Your task to perform on an android device: toggle airplane mode Image 0: 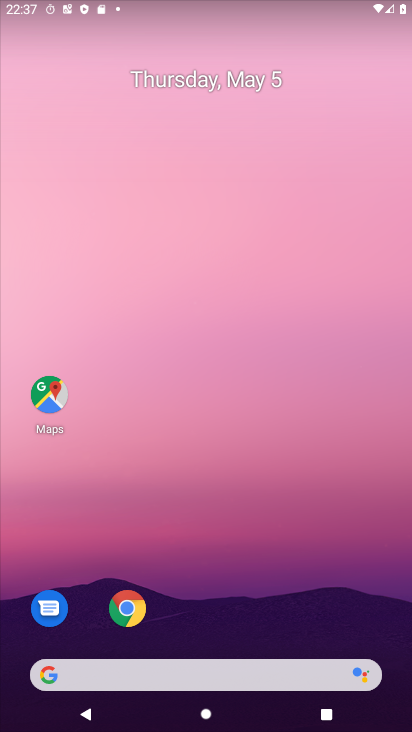
Step 0: drag from (195, 10) to (235, 621)
Your task to perform on an android device: toggle airplane mode Image 1: 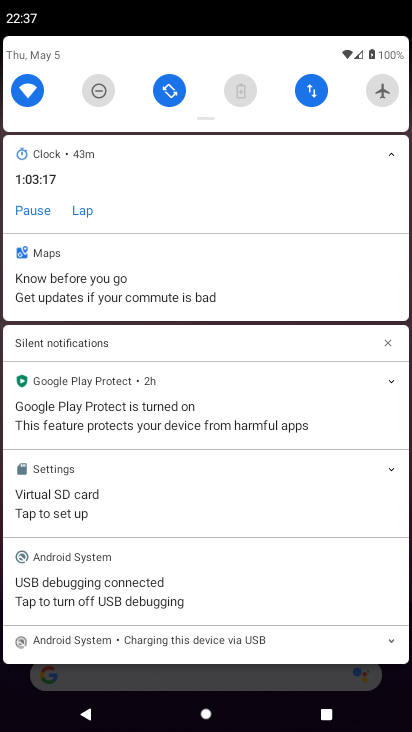
Step 1: drag from (313, 119) to (331, 651)
Your task to perform on an android device: toggle airplane mode Image 2: 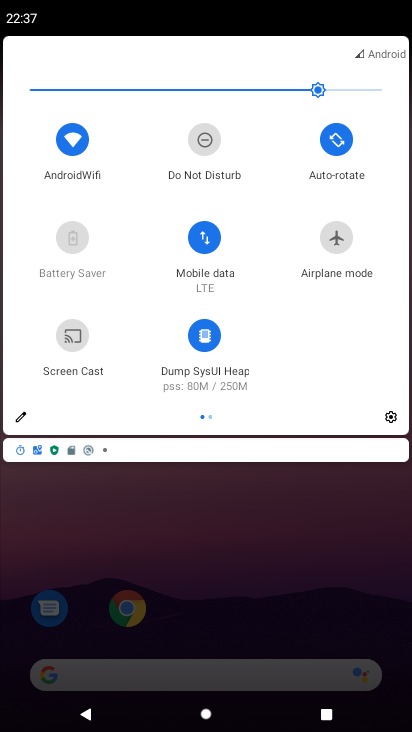
Step 2: click (337, 229)
Your task to perform on an android device: toggle airplane mode Image 3: 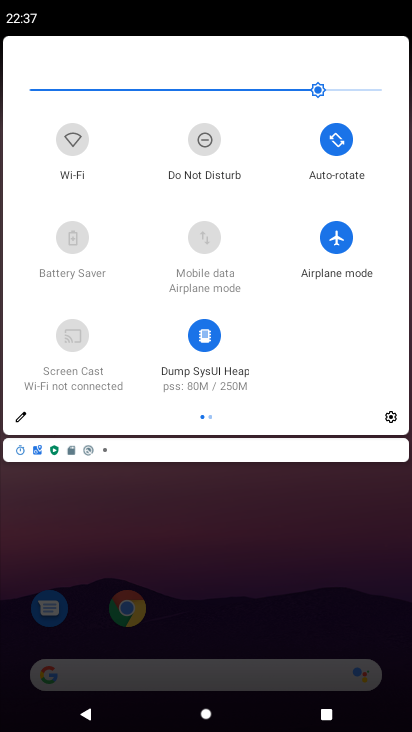
Step 3: task complete